Your task to perform on an android device: Open Yahoo.com Image 0: 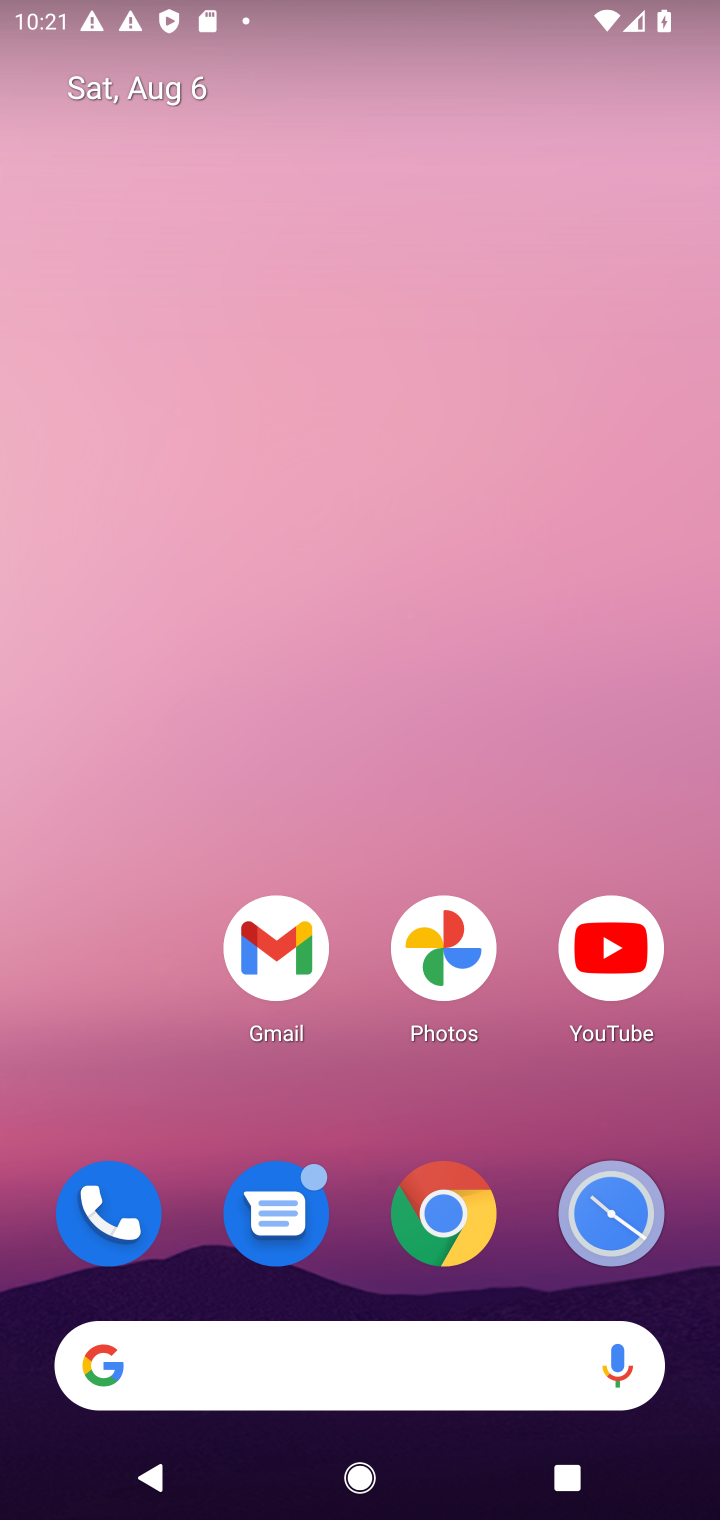
Step 0: click (358, 1368)
Your task to perform on an android device: Open Yahoo.com Image 1: 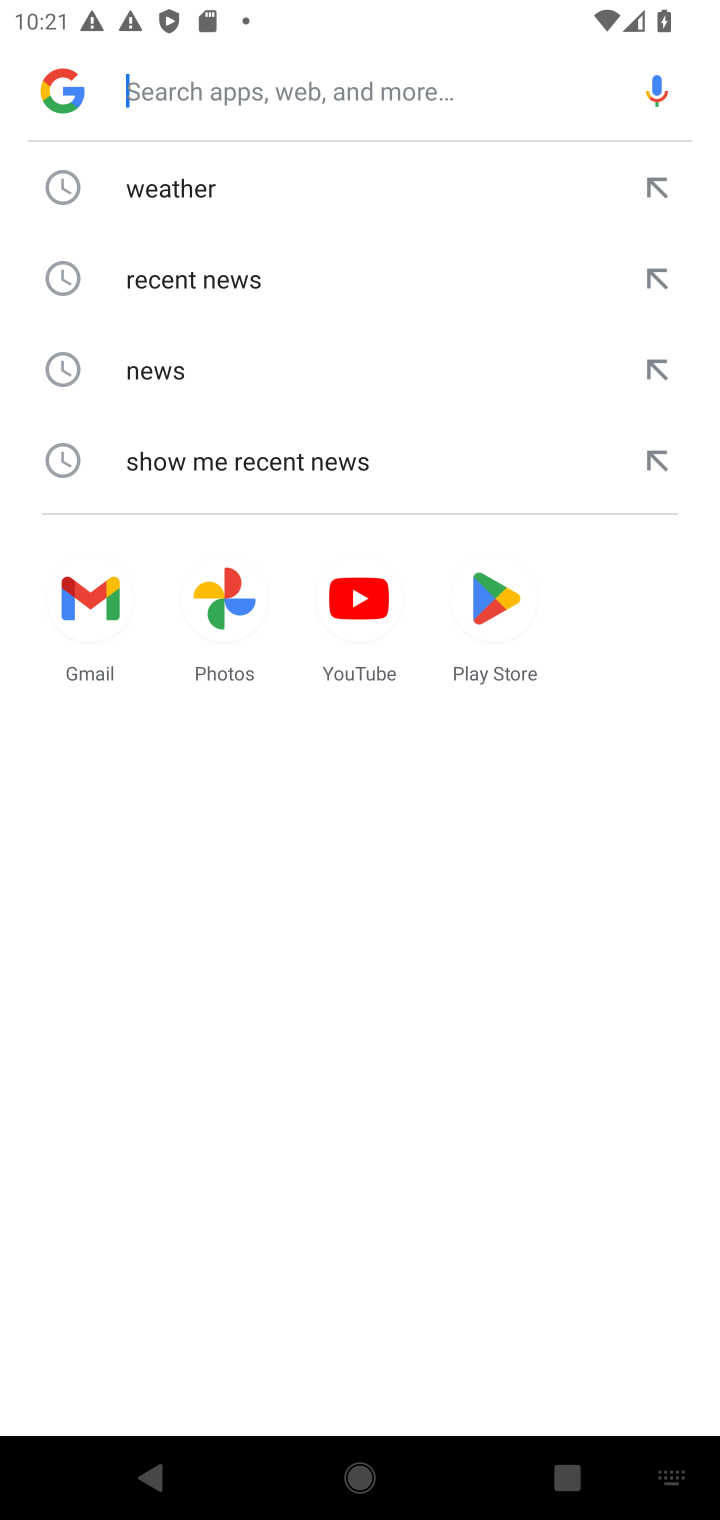
Step 1: type "Yahoo.com"
Your task to perform on an android device: Open Yahoo.com Image 2: 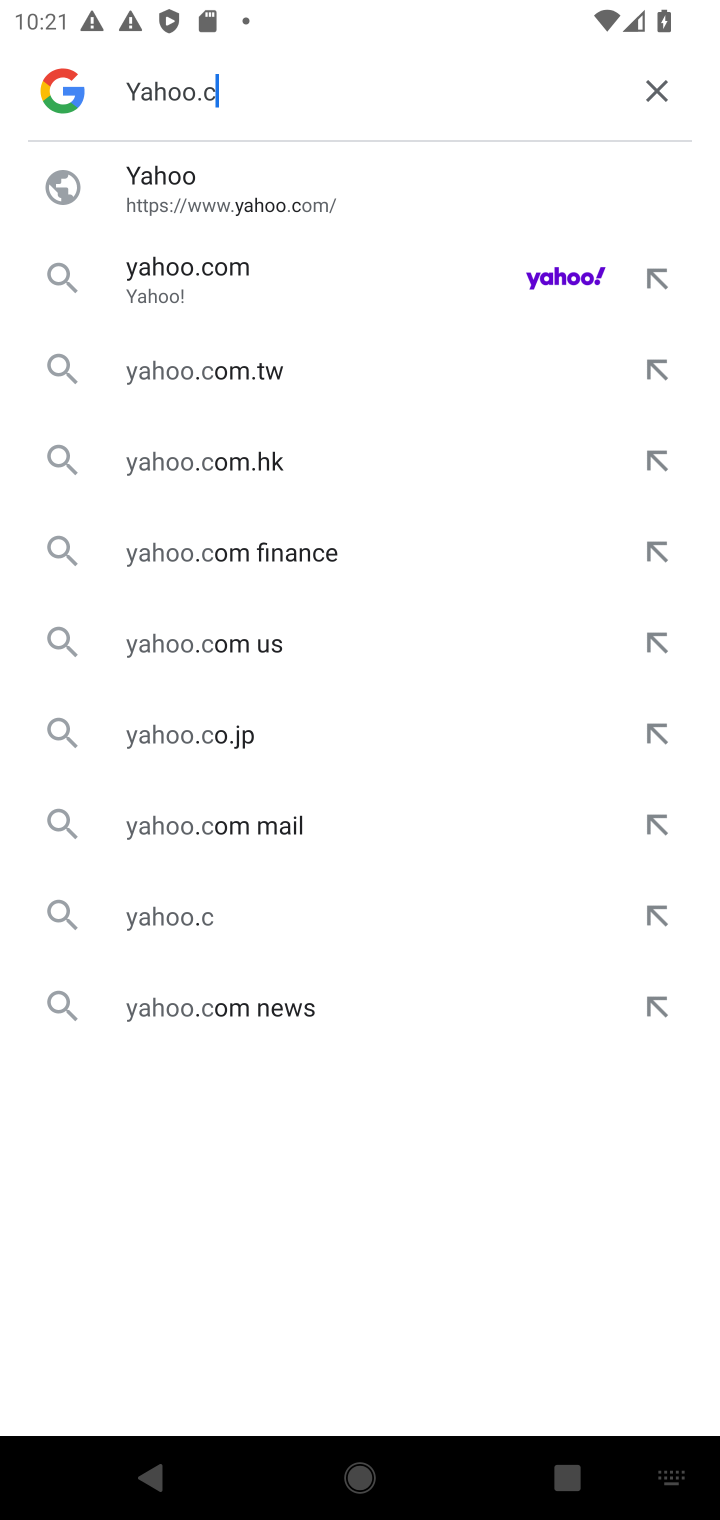
Step 2: type ""
Your task to perform on an android device: Open Yahoo.com Image 3: 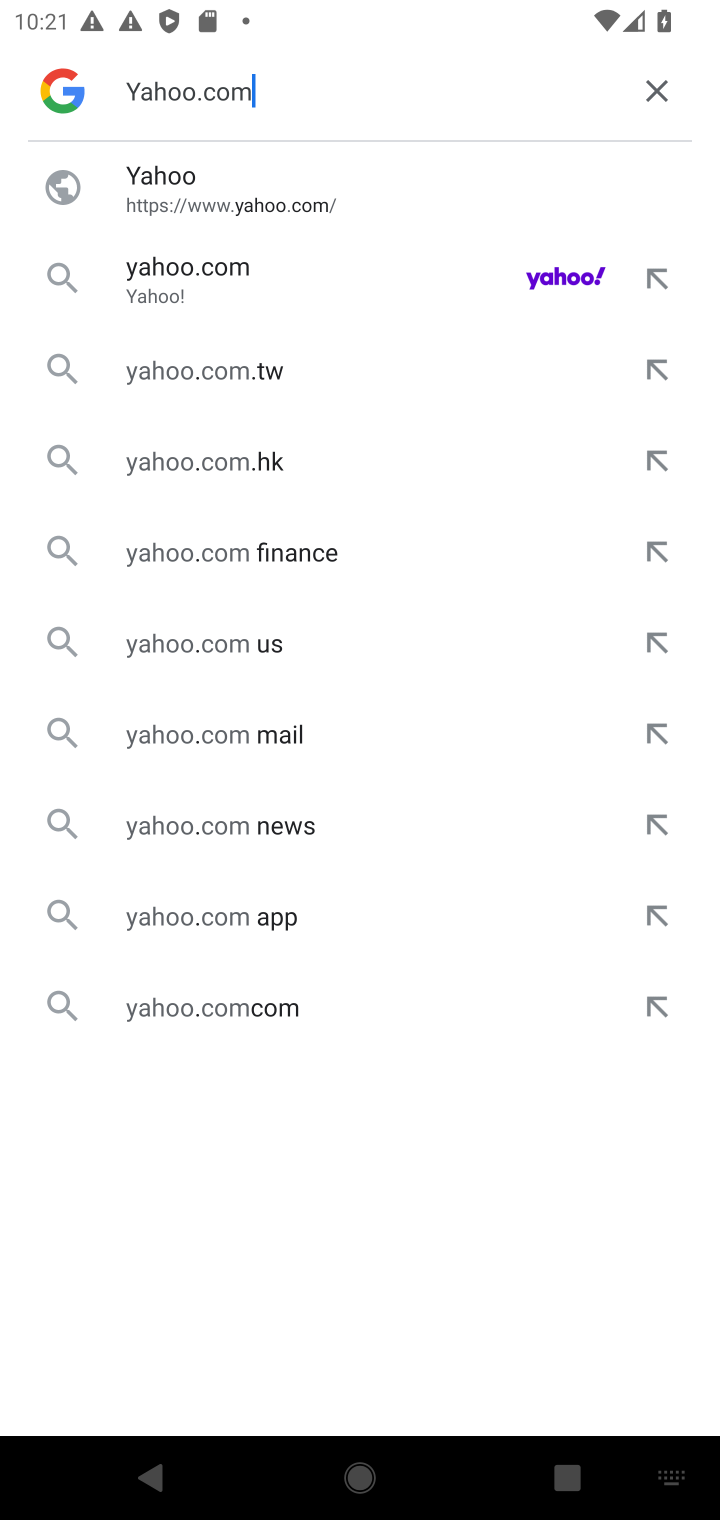
Step 3: press enter
Your task to perform on an android device: Open Yahoo.com Image 4: 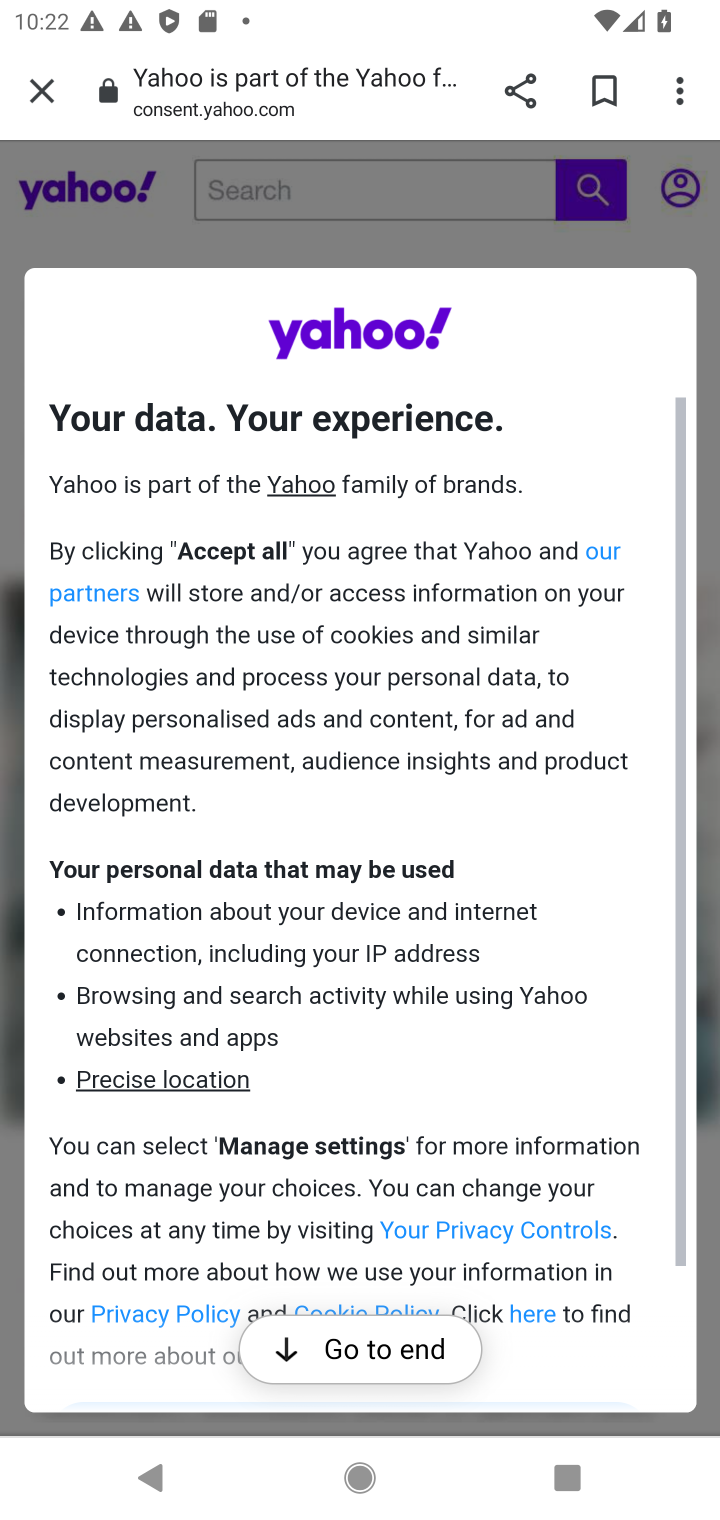
Step 4: click (382, 1351)
Your task to perform on an android device: Open Yahoo.com Image 5: 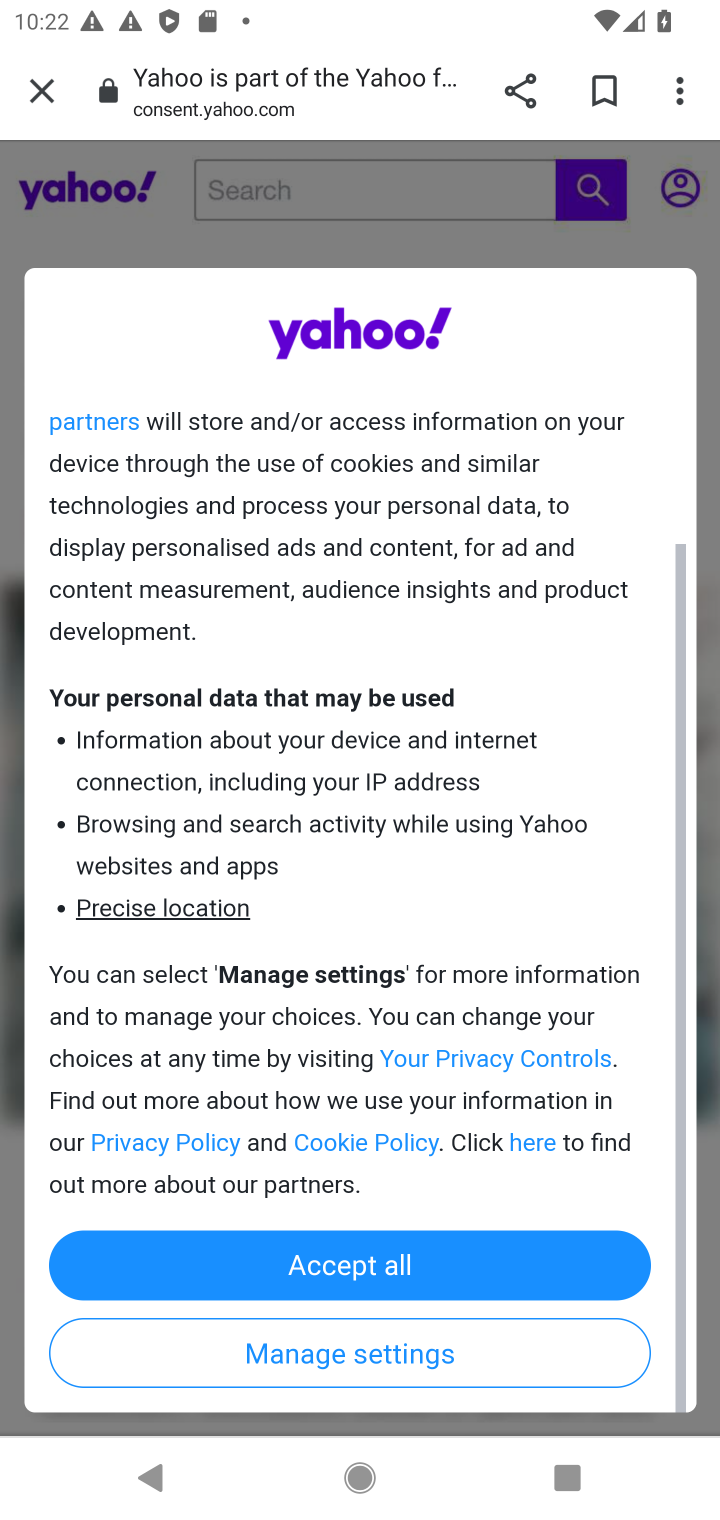
Step 5: click (349, 1279)
Your task to perform on an android device: Open Yahoo.com Image 6: 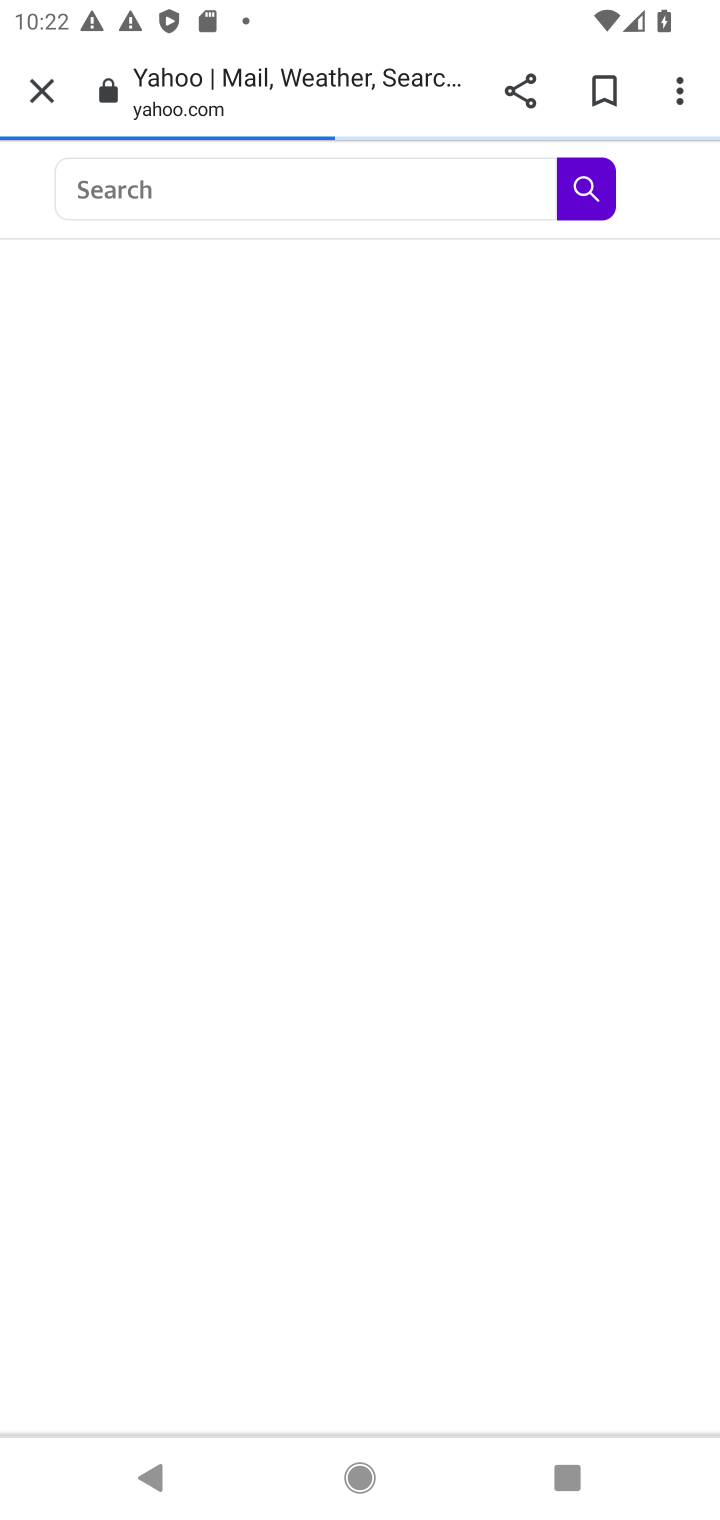
Step 6: task complete